Your task to perform on an android device: Search for a new grill on Home Depot Image 0: 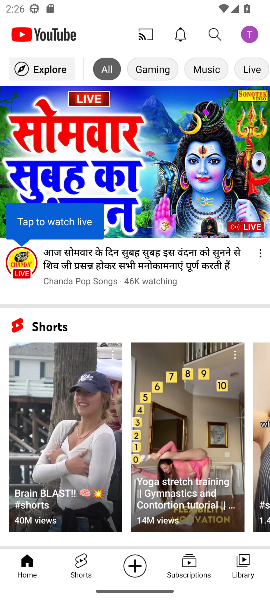
Step 0: press home button
Your task to perform on an android device: Search for a new grill on Home Depot Image 1: 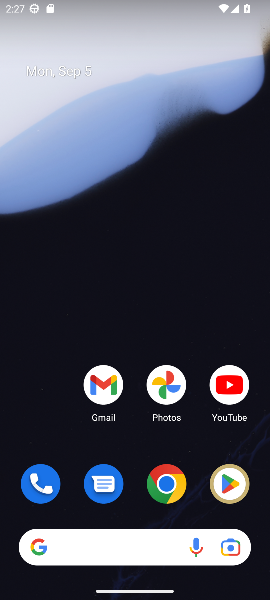
Step 1: click (163, 496)
Your task to perform on an android device: Search for a new grill on Home Depot Image 2: 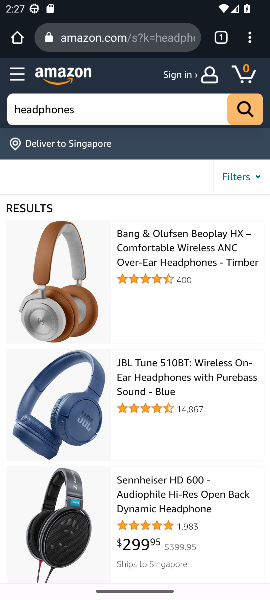
Step 2: click (150, 35)
Your task to perform on an android device: Search for a new grill on Home Depot Image 3: 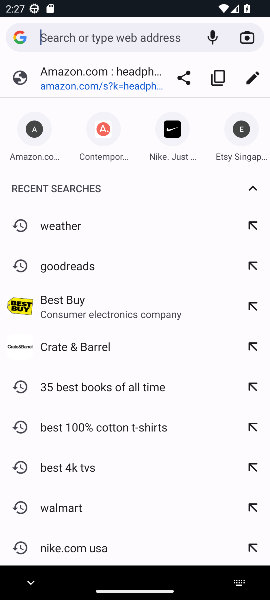
Step 3: press enter
Your task to perform on an android device: Search for a new grill on Home Depot Image 4: 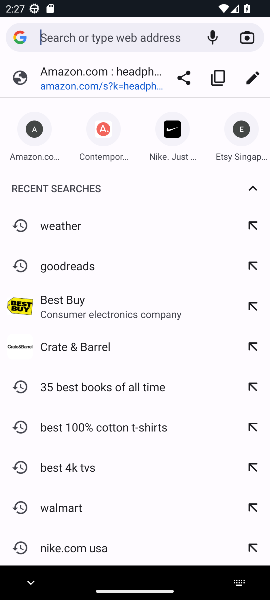
Step 4: type "Home Depot"
Your task to perform on an android device: Search for a new grill on Home Depot Image 5: 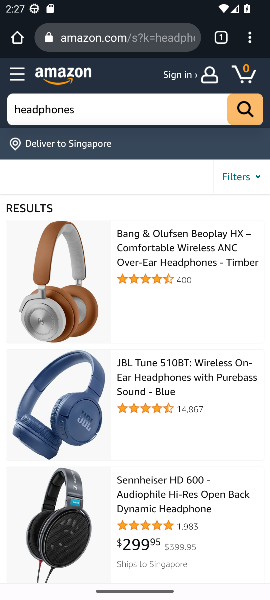
Step 5: click (89, 41)
Your task to perform on an android device: Search for a new grill on Home Depot Image 6: 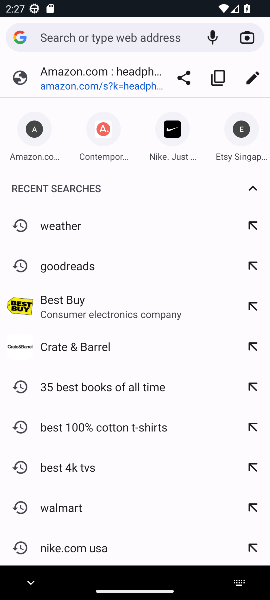
Step 6: type "Home Depot"
Your task to perform on an android device: Search for a new grill on Home Depot Image 7: 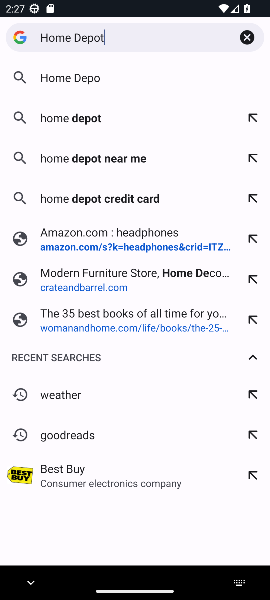
Step 7: press enter
Your task to perform on an android device: Search for a new grill on Home Depot Image 8: 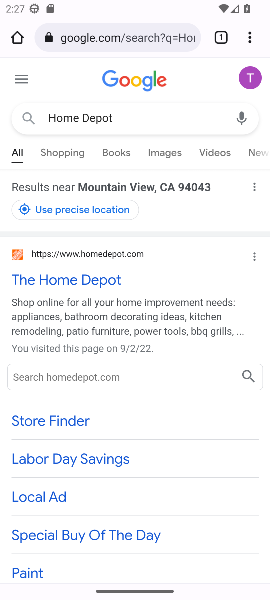
Step 8: click (108, 279)
Your task to perform on an android device: Search for a new grill on Home Depot Image 9: 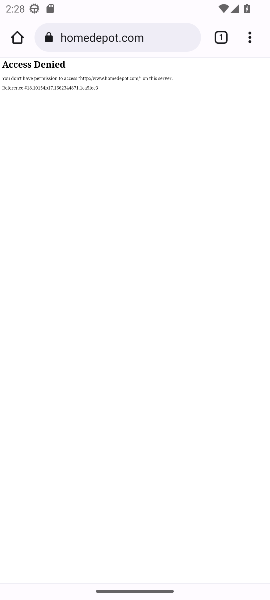
Step 9: task complete